Your task to perform on an android device: Go to sound settings Image 0: 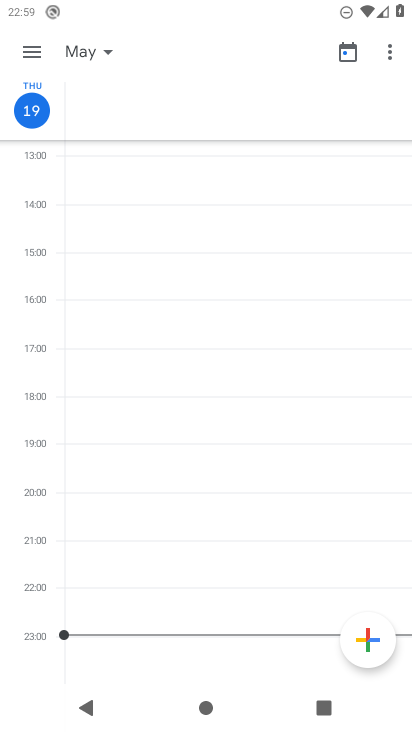
Step 0: press home button
Your task to perform on an android device: Go to sound settings Image 1: 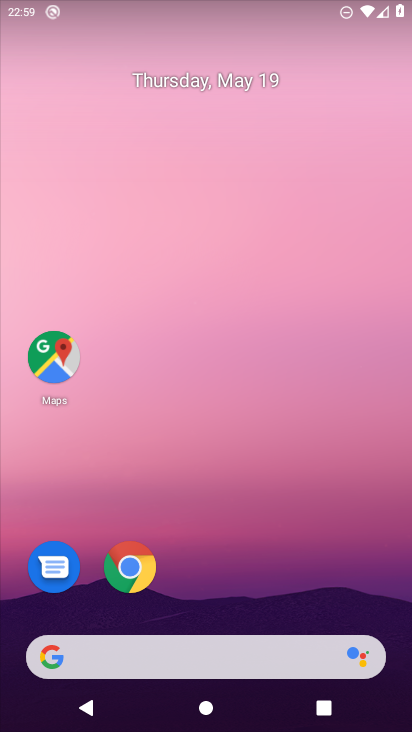
Step 1: drag from (234, 616) to (215, 111)
Your task to perform on an android device: Go to sound settings Image 2: 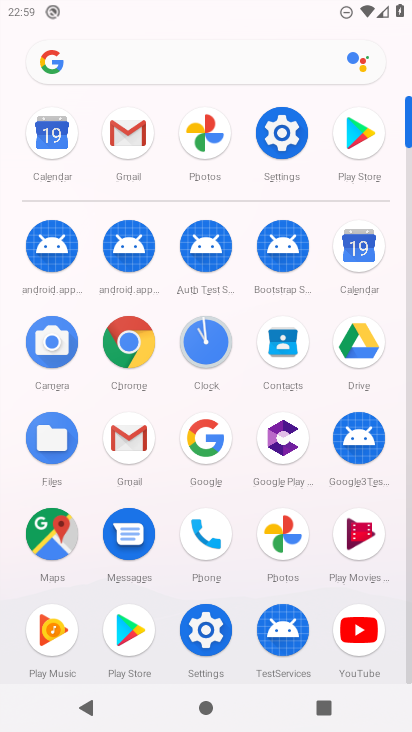
Step 2: click (279, 125)
Your task to perform on an android device: Go to sound settings Image 3: 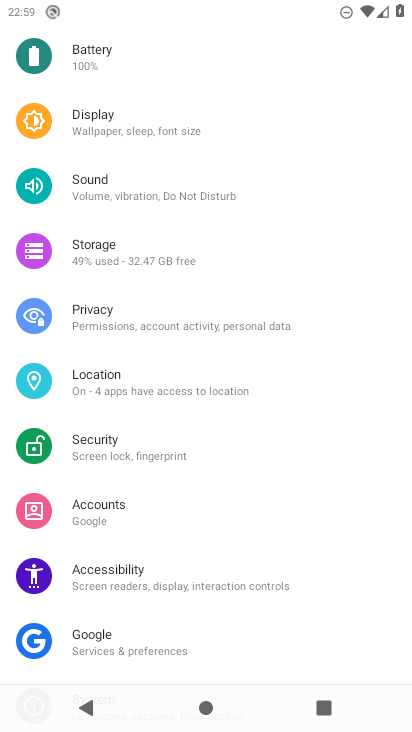
Step 3: click (116, 179)
Your task to perform on an android device: Go to sound settings Image 4: 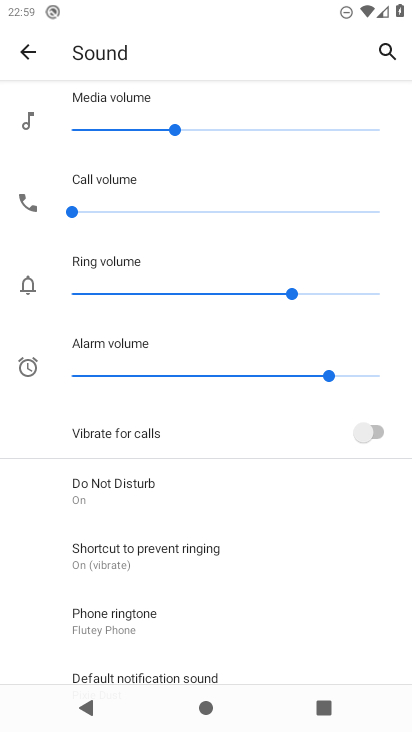
Step 4: drag from (52, 594) to (41, 127)
Your task to perform on an android device: Go to sound settings Image 5: 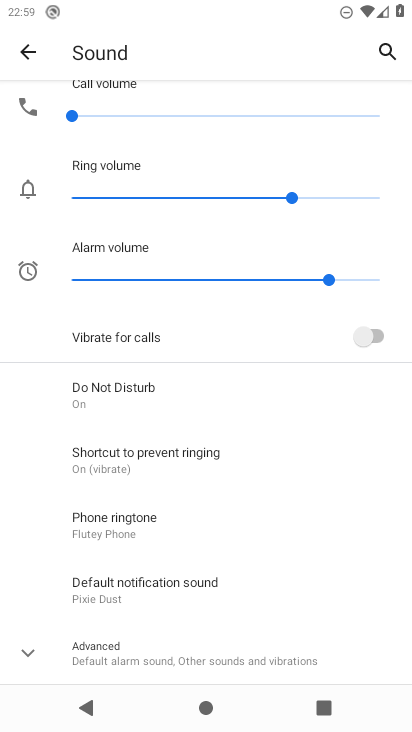
Step 5: click (32, 651)
Your task to perform on an android device: Go to sound settings Image 6: 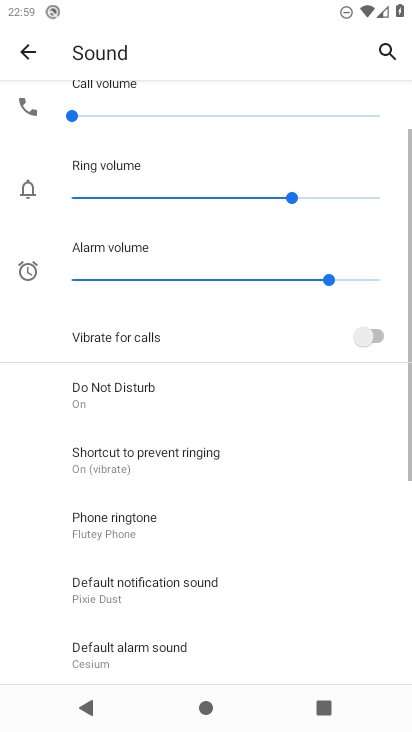
Step 6: task complete